Your task to perform on an android device: Open network settings Image 0: 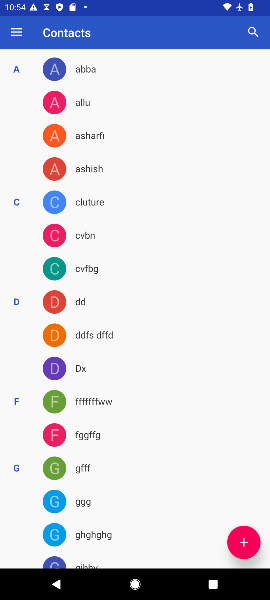
Step 0: press back button
Your task to perform on an android device: Open network settings Image 1: 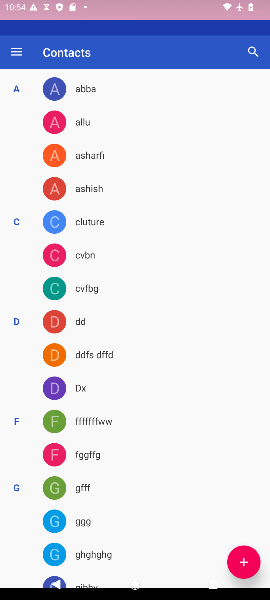
Step 1: press home button
Your task to perform on an android device: Open network settings Image 2: 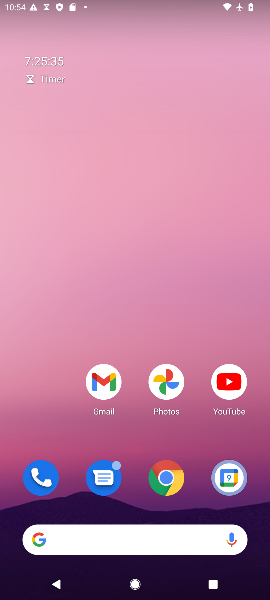
Step 2: drag from (186, 354) to (47, 4)
Your task to perform on an android device: Open network settings Image 3: 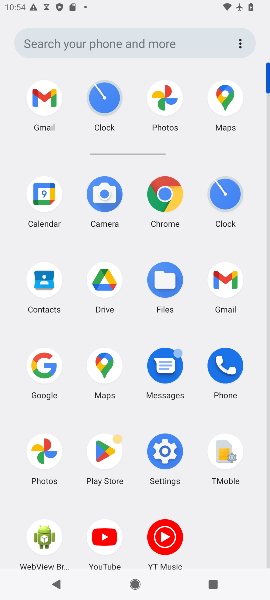
Step 3: click (158, 461)
Your task to perform on an android device: Open network settings Image 4: 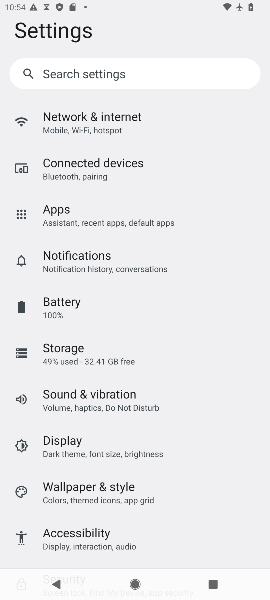
Step 4: click (89, 120)
Your task to perform on an android device: Open network settings Image 5: 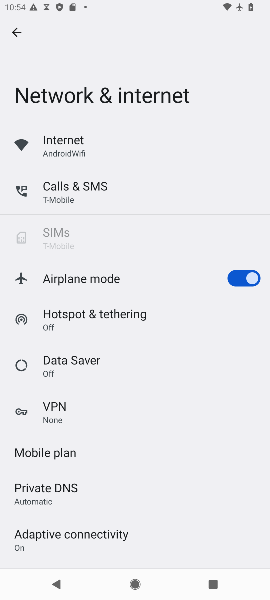
Step 5: task complete